Your task to perform on an android device: delete browsing data in the chrome app Image 0: 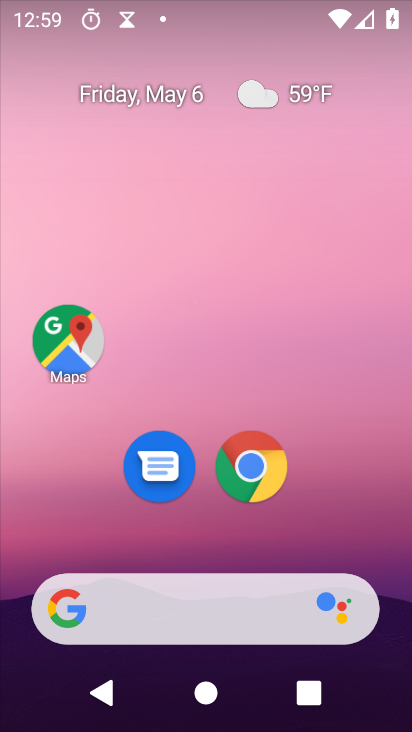
Step 0: click (280, 482)
Your task to perform on an android device: delete browsing data in the chrome app Image 1: 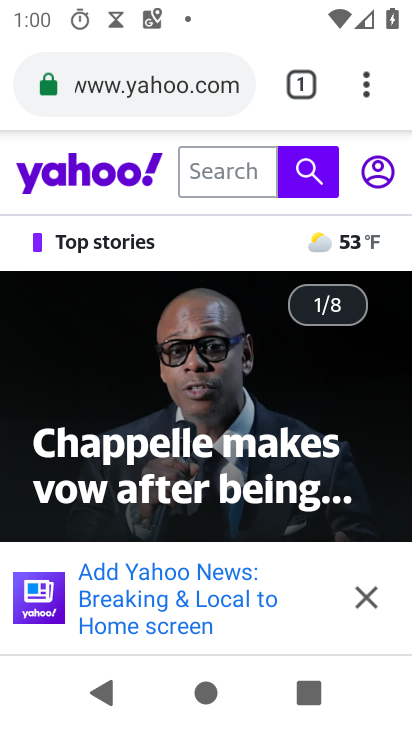
Step 1: drag from (357, 93) to (191, 486)
Your task to perform on an android device: delete browsing data in the chrome app Image 2: 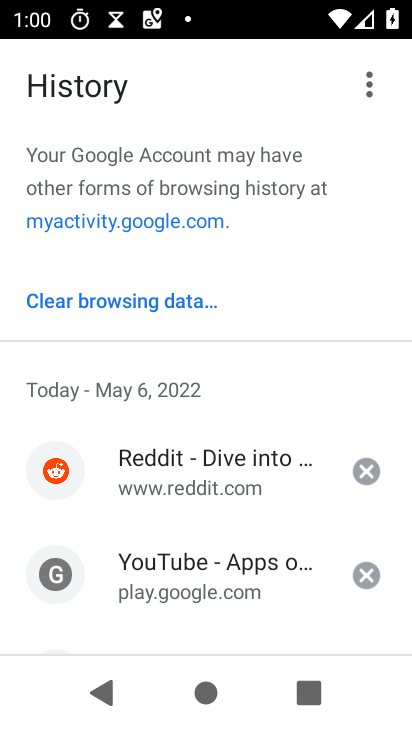
Step 2: drag from (233, 576) to (185, 540)
Your task to perform on an android device: delete browsing data in the chrome app Image 3: 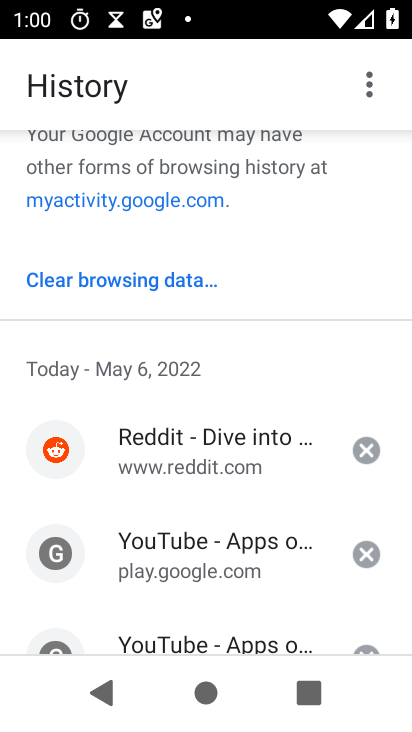
Step 3: click (184, 283)
Your task to perform on an android device: delete browsing data in the chrome app Image 4: 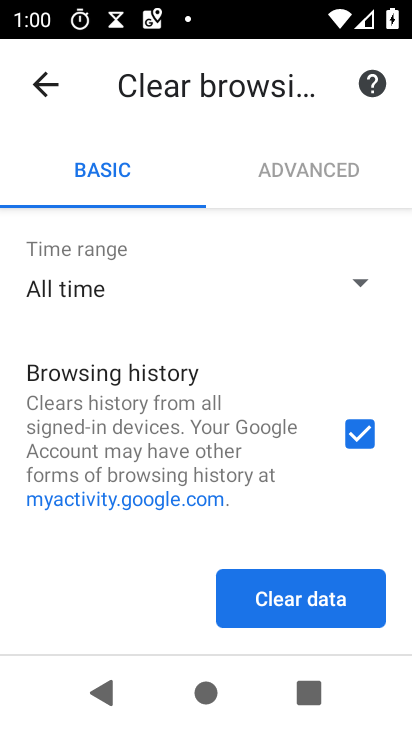
Step 4: click (351, 593)
Your task to perform on an android device: delete browsing data in the chrome app Image 5: 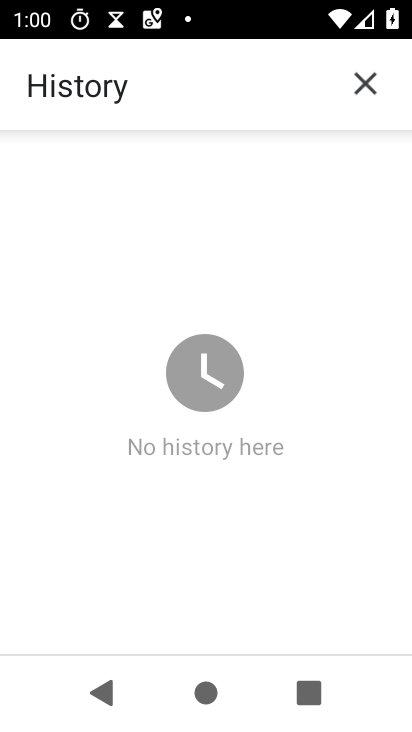
Step 5: task complete